Your task to perform on an android device: What's the weather today? Image 0: 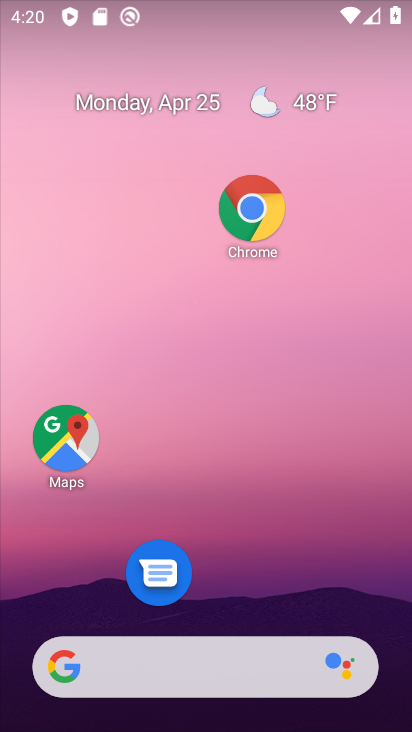
Step 0: drag from (211, 597) to (212, 172)
Your task to perform on an android device: What's the weather today? Image 1: 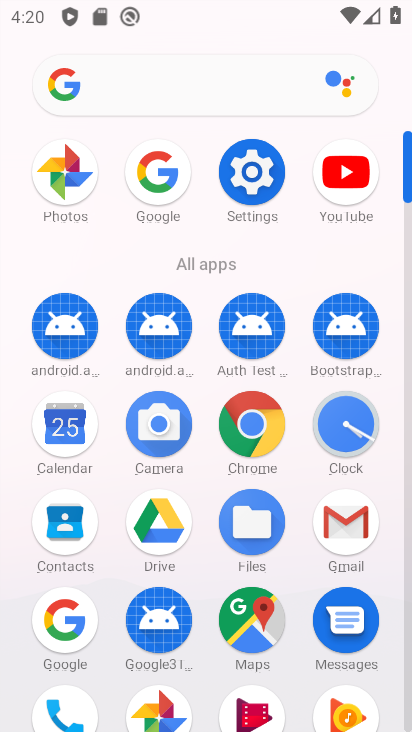
Step 1: click (55, 615)
Your task to perform on an android device: What's the weather today? Image 2: 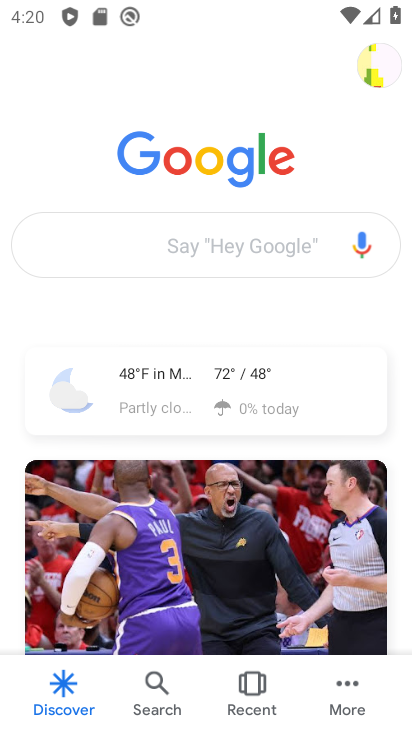
Step 2: click (175, 246)
Your task to perform on an android device: What's the weather today? Image 3: 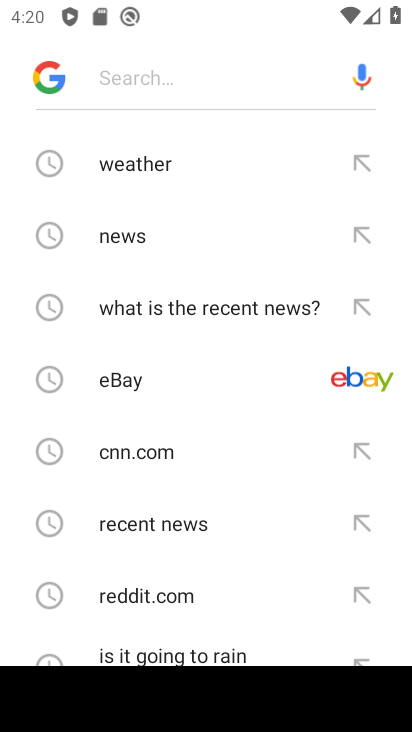
Step 3: click (125, 168)
Your task to perform on an android device: What's the weather today? Image 4: 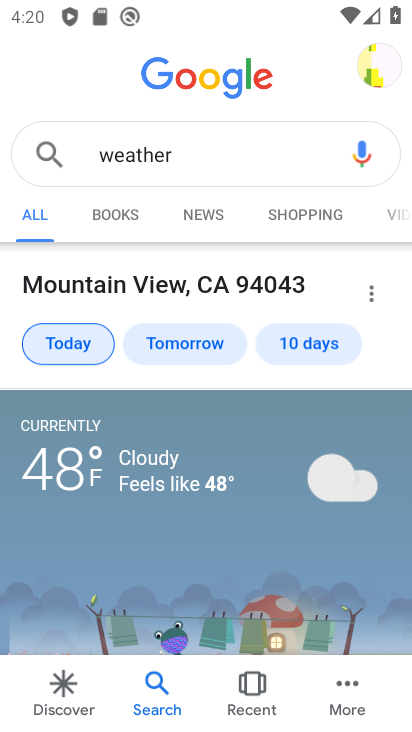
Step 4: task complete